Your task to perform on an android device: Is it going to rain today? Image 0: 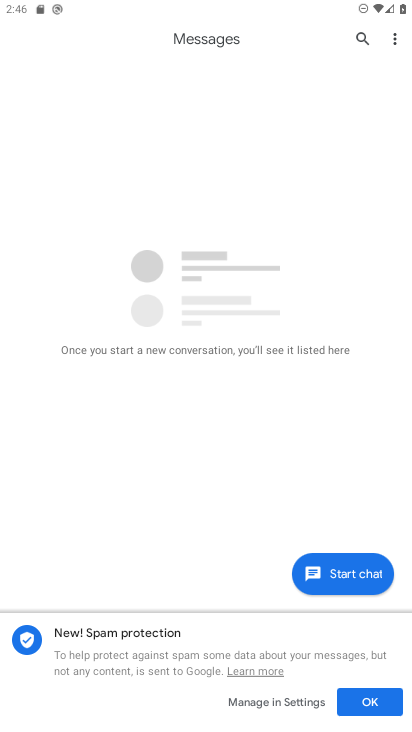
Step 0: press home button
Your task to perform on an android device: Is it going to rain today? Image 1: 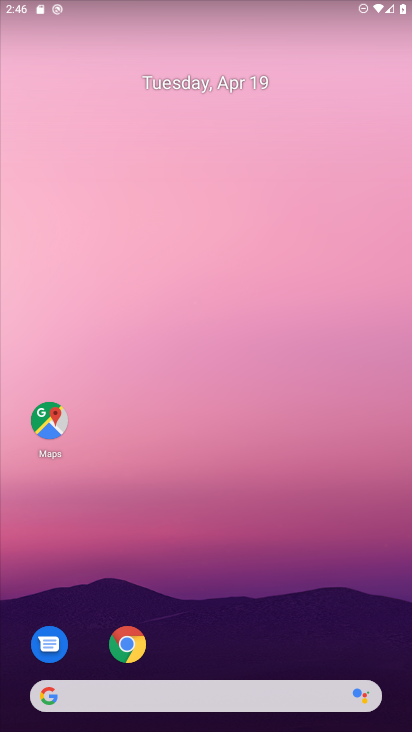
Step 1: click (127, 643)
Your task to perform on an android device: Is it going to rain today? Image 2: 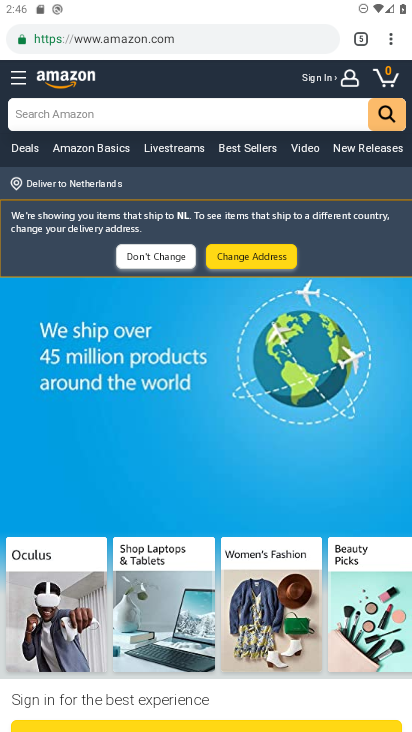
Step 2: click (358, 36)
Your task to perform on an android device: Is it going to rain today? Image 3: 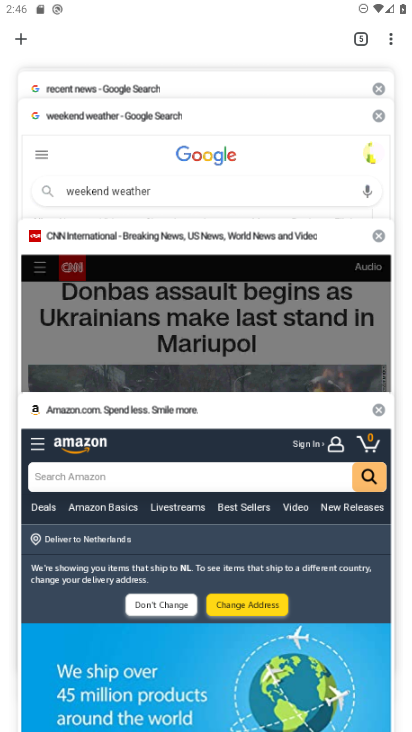
Step 3: click (18, 38)
Your task to perform on an android device: Is it going to rain today? Image 4: 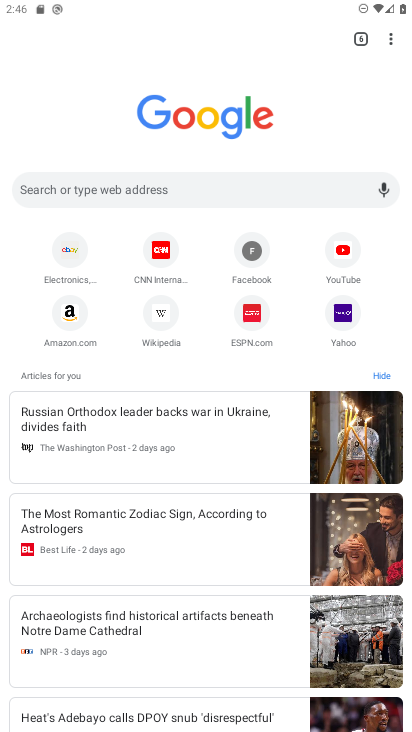
Step 4: click (86, 185)
Your task to perform on an android device: Is it going to rain today? Image 5: 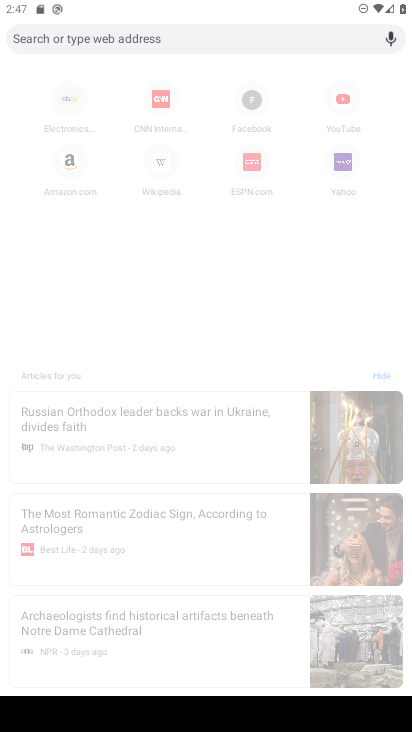
Step 5: type "is it going to rain today"
Your task to perform on an android device: Is it going to rain today? Image 6: 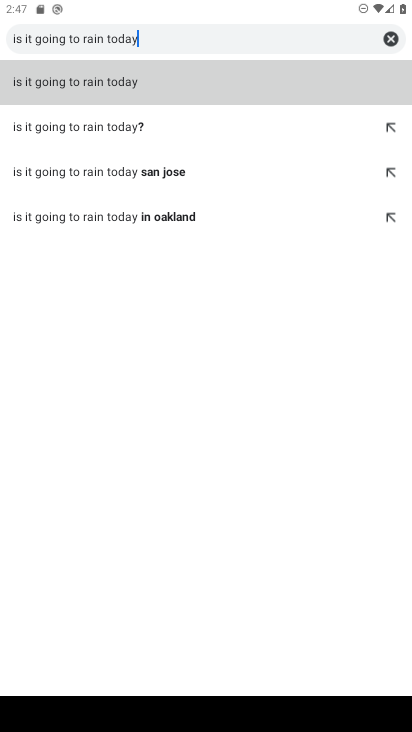
Step 6: click (184, 92)
Your task to perform on an android device: Is it going to rain today? Image 7: 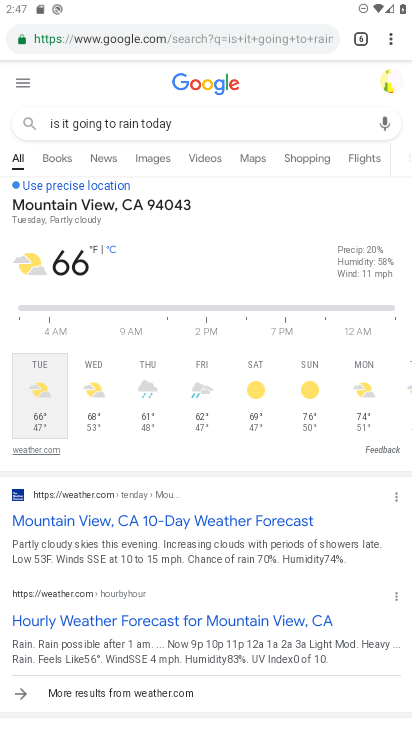
Step 7: task complete